Your task to perform on an android device: Go to location settings Image 0: 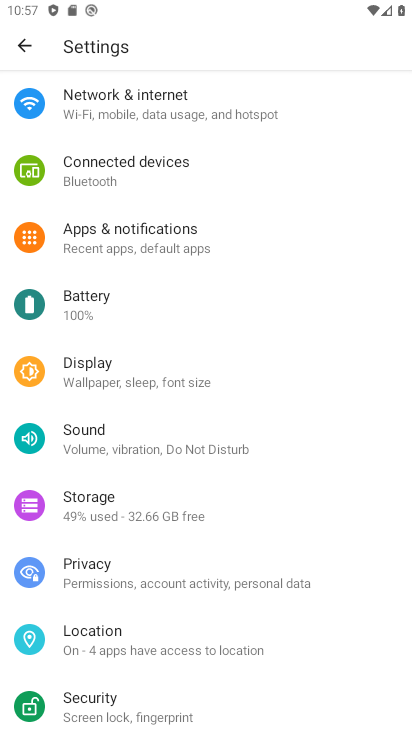
Step 0: click (124, 639)
Your task to perform on an android device: Go to location settings Image 1: 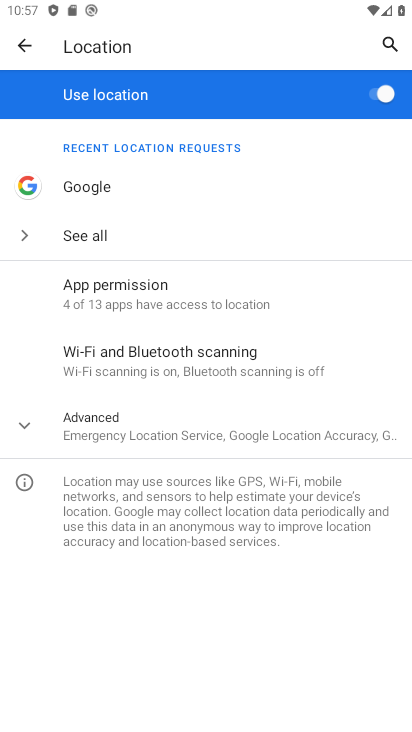
Step 1: click (109, 432)
Your task to perform on an android device: Go to location settings Image 2: 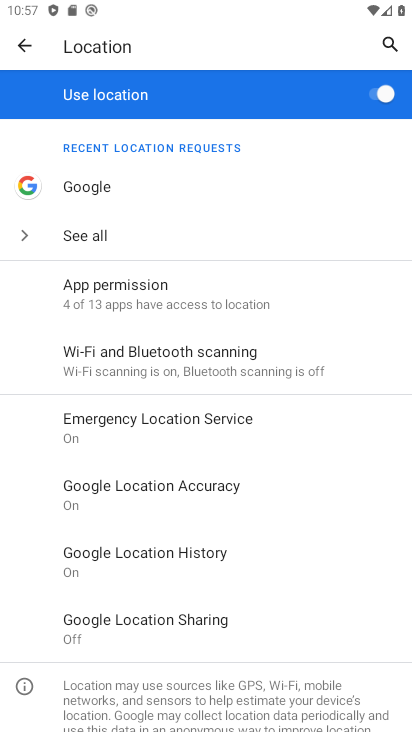
Step 2: task complete